Your task to perform on an android device: Is it going to rain this weekend? Image 0: 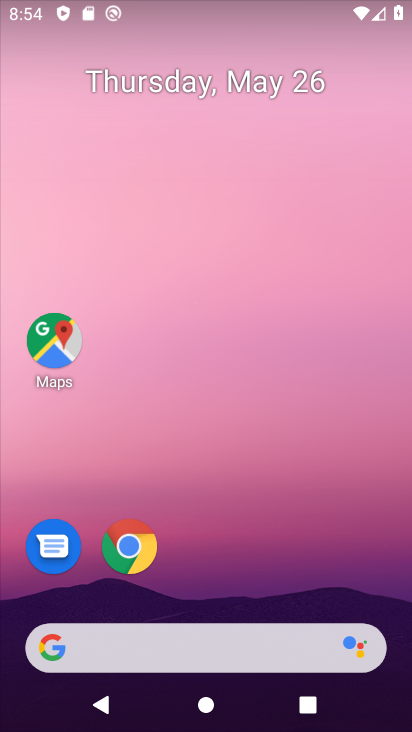
Step 0: click (128, 551)
Your task to perform on an android device: Is it going to rain this weekend? Image 1: 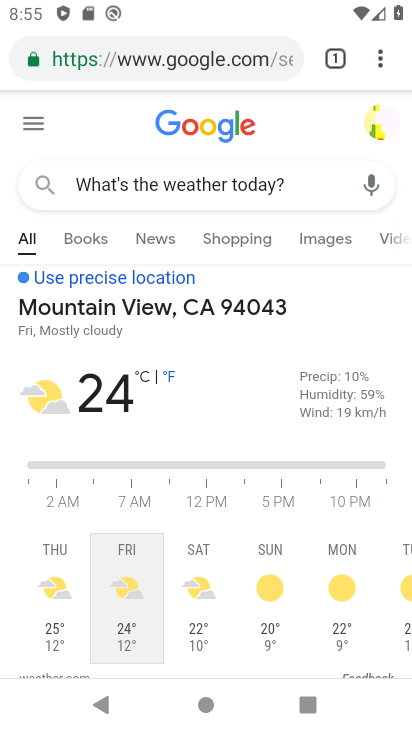
Step 1: click (303, 187)
Your task to perform on an android device: Is it going to rain this weekend? Image 2: 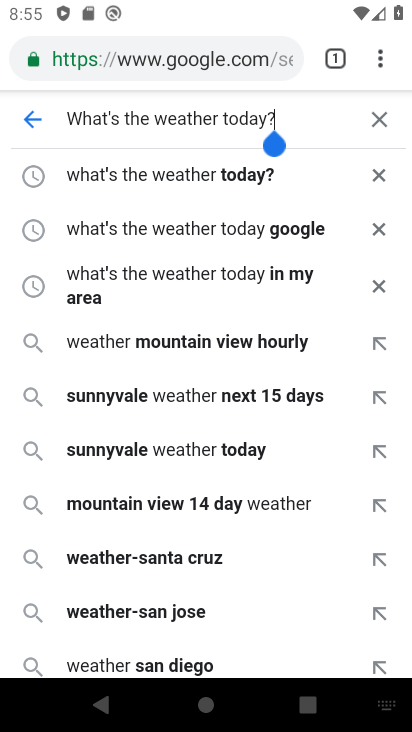
Step 2: click (383, 113)
Your task to perform on an android device: Is it going to rain this weekend? Image 3: 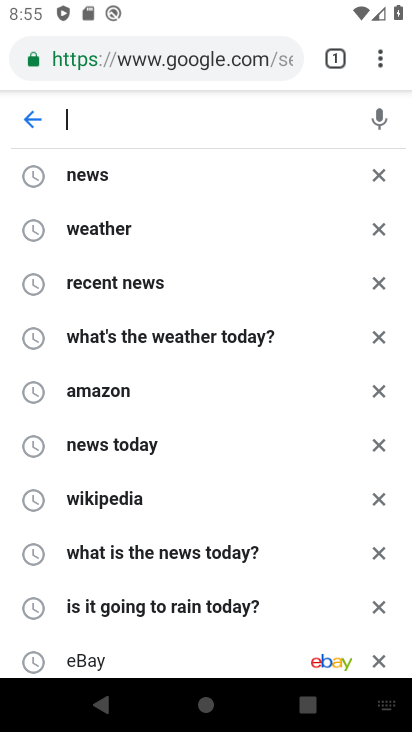
Step 3: type "Is it going to rain this weekend?"
Your task to perform on an android device: Is it going to rain this weekend? Image 4: 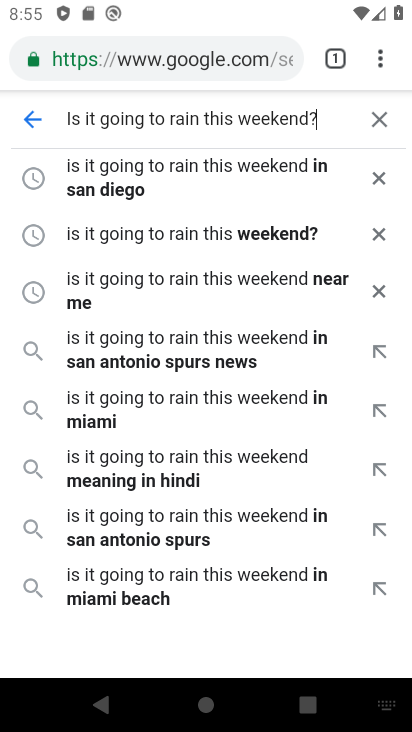
Step 4: click (234, 222)
Your task to perform on an android device: Is it going to rain this weekend? Image 5: 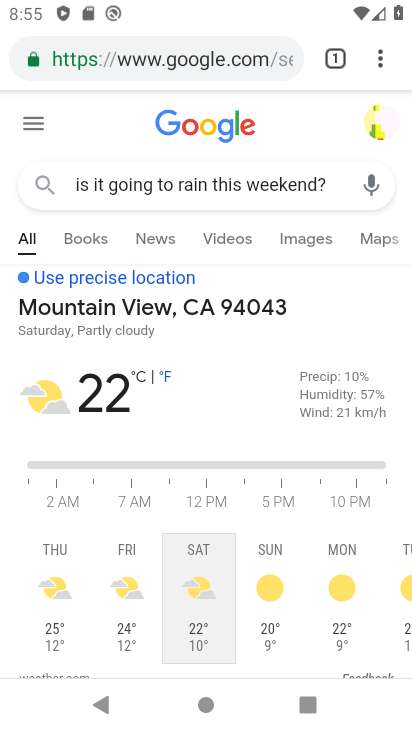
Step 5: task complete